Your task to perform on an android device: change the clock display to digital Image 0: 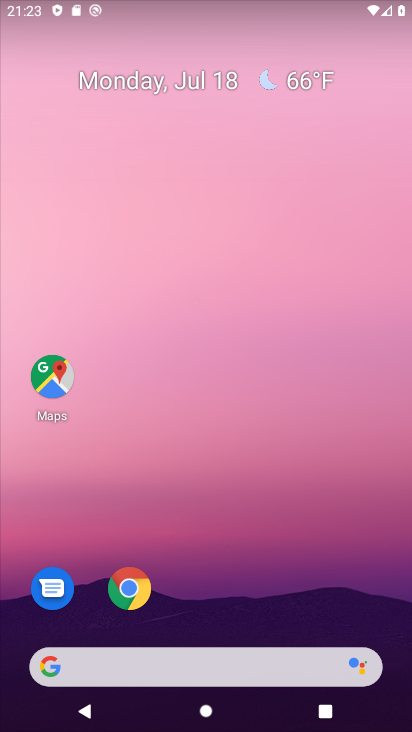
Step 0: press home button
Your task to perform on an android device: change the clock display to digital Image 1: 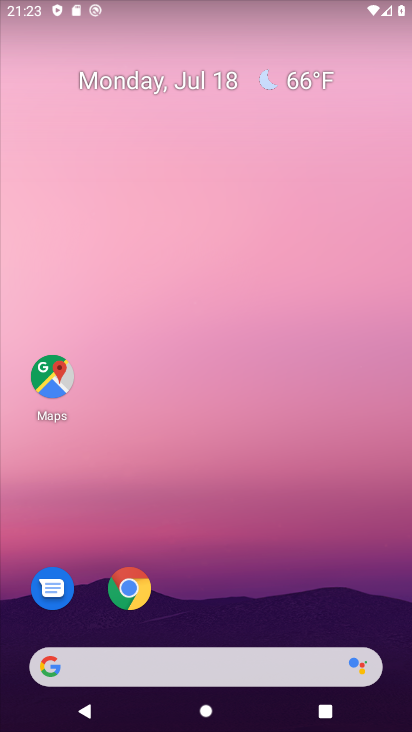
Step 1: drag from (158, 671) to (284, 12)
Your task to perform on an android device: change the clock display to digital Image 2: 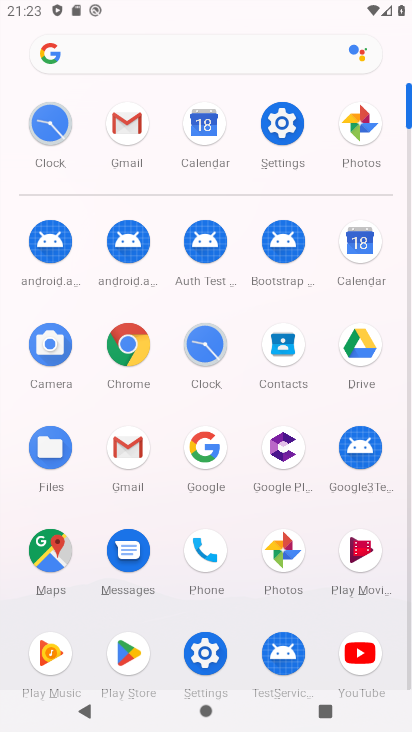
Step 2: click (51, 126)
Your task to perform on an android device: change the clock display to digital Image 3: 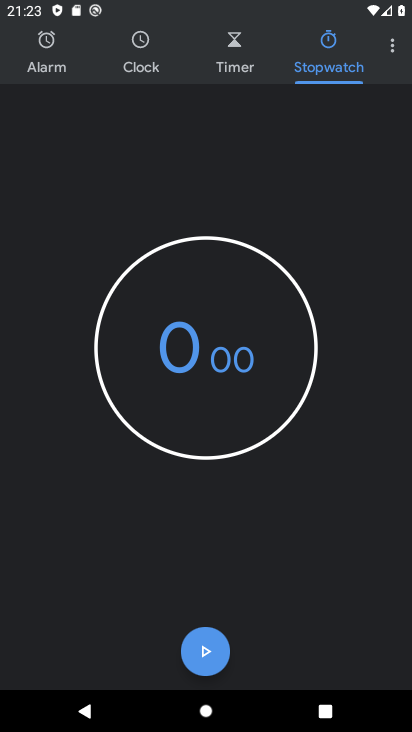
Step 3: click (390, 42)
Your task to perform on an android device: change the clock display to digital Image 4: 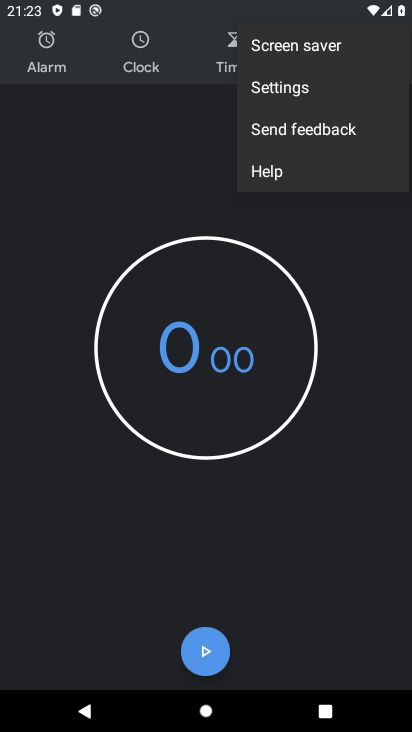
Step 4: click (295, 89)
Your task to perform on an android device: change the clock display to digital Image 5: 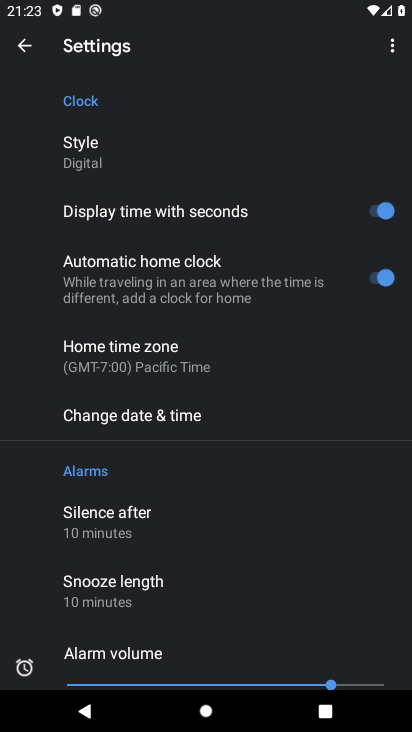
Step 5: task complete